Your task to perform on an android device: change notification settings in the gmail app Image 0: 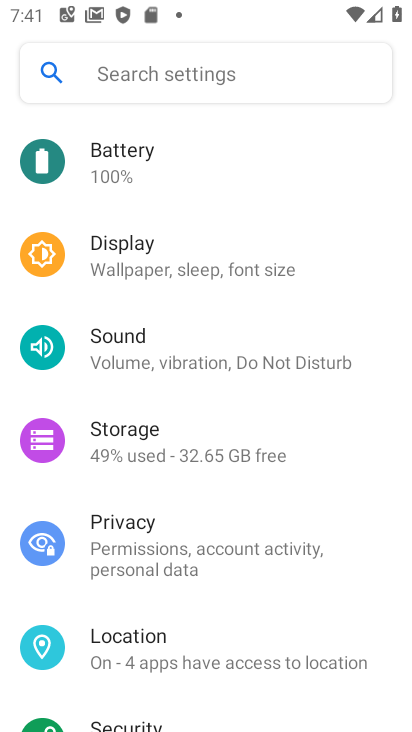
Step 0: press back button
Your task to perform on an android device: change notification settings in the gmail app Image 1: 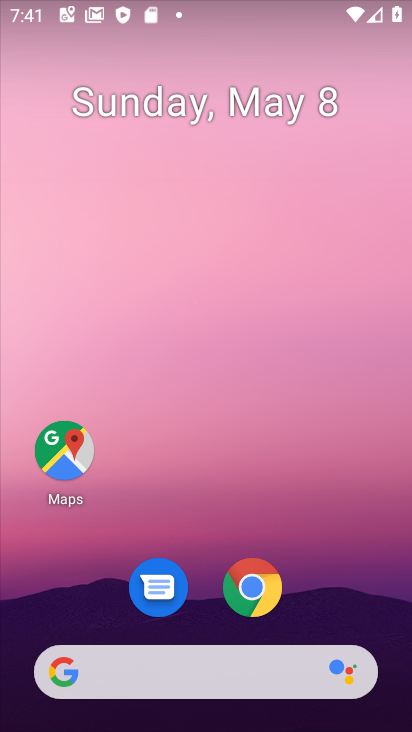
Step 1: drag from (336, 592) to (135, 5)
Your task to perform on an android device: change notification settings in the gmail app Image 2: 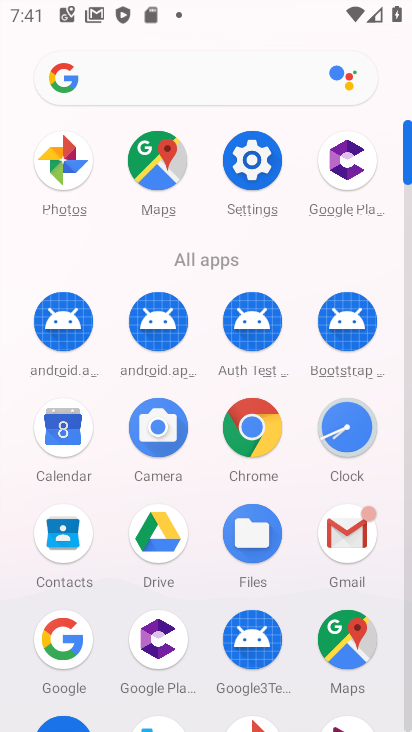
Step 2: click (344, 532)
Your task to perform on an android device: change notification settings in the gmail app Image 3: 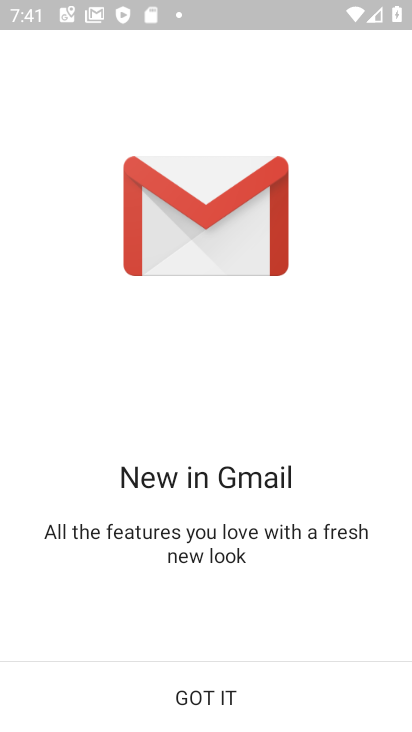
Step 3: click (194, 696)
Your task to perform on an android device: change notification settings in the gmail app Image 4: 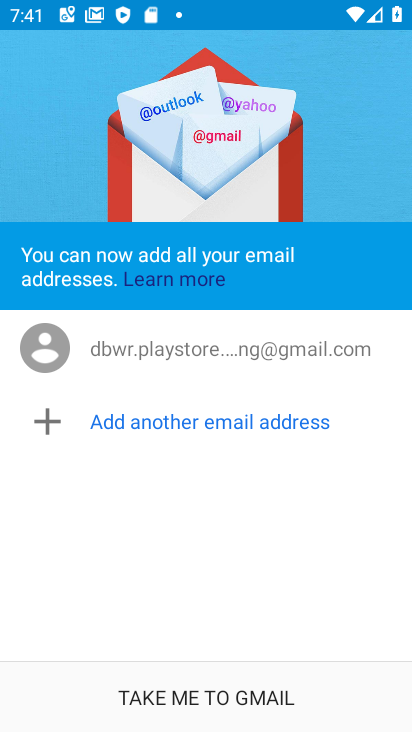
Step 4: click (195, 697)
Your task to perform on an android device: change notification settings in the gmail app Image 5: 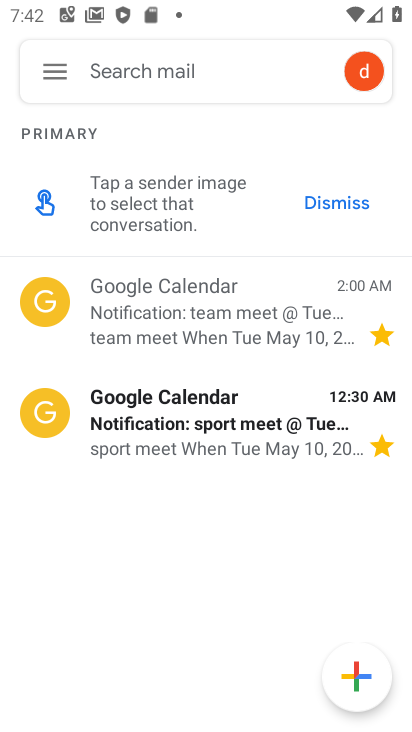
Step 5: click (48, 74)
Your task to perform on an android device: change notification settings in the gmail app Image 6: 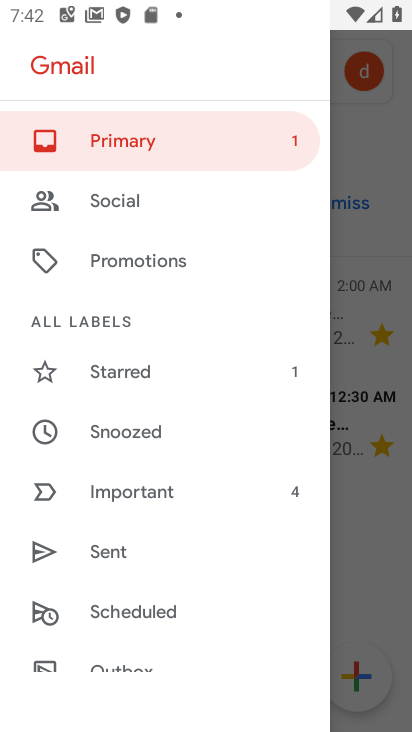
Step 6: drag from (151, 551) to (179, 443)
Your task to perform on an android device: change notification settings in the gmail app Image 7: 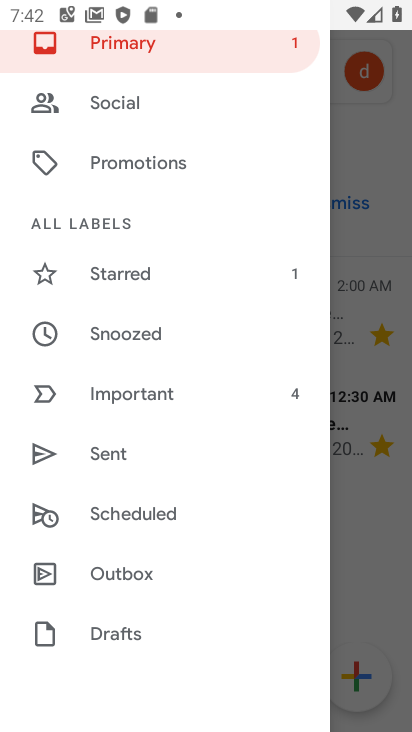
Step 7: drag from (140, 597) to (165, 474)
Your task to perform on an android device: change notification settings in the gmail app Image 8: 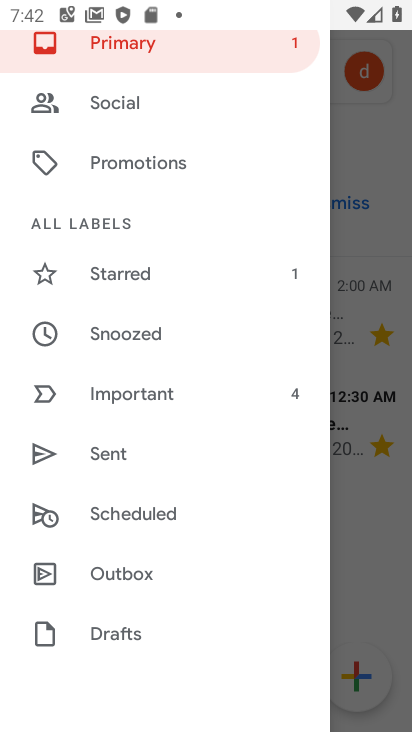
Step 8: drag from (113, 618) to (190, 484)
Your task to perform on an android device: change notification settings in the gmail app Image 9: 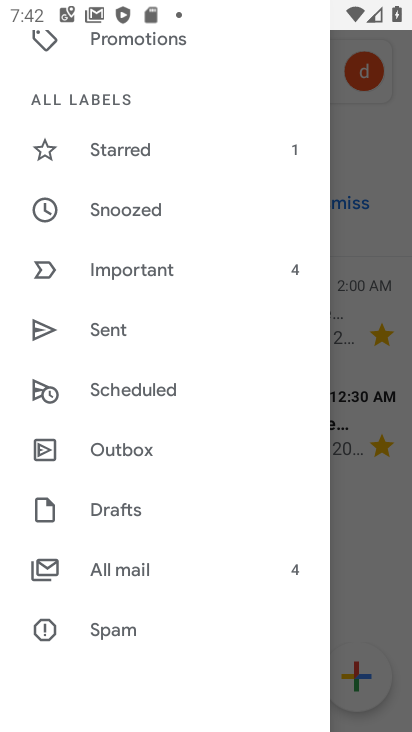
Step 9: drag from (117, 602) to (184, 498)
Your task to perform on an android device: change notification settings in the gmail app Image 10: 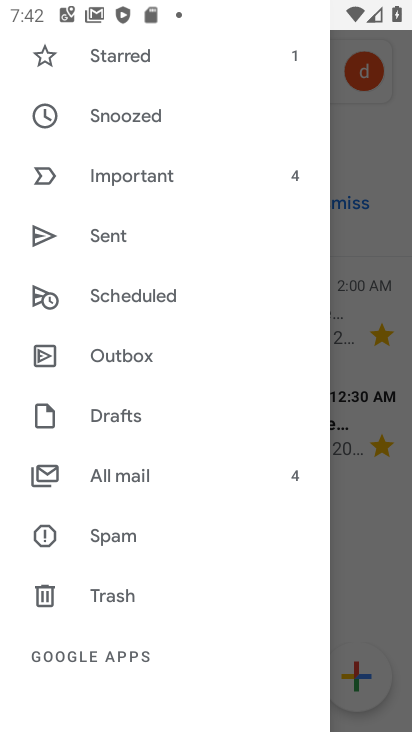
Step 10: drag from (123, 622) to (224, 500)
Your task to perform on an android device: change notification settings in the gmail app Image 11: 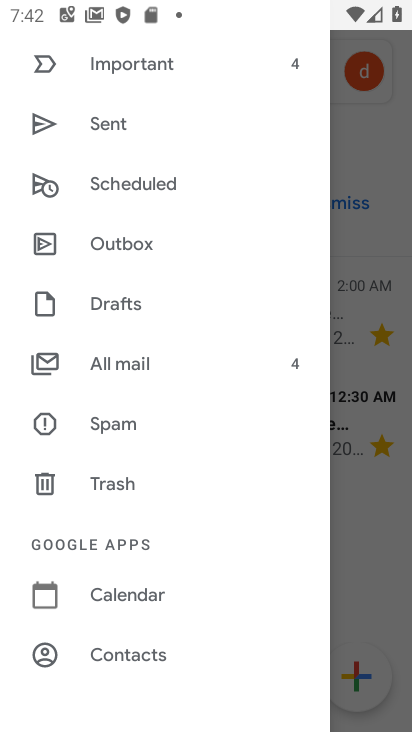
Step 11: drag from (121, 621) to (196, 498)
Your task to perform on an android device: change notification settings in the gmail app Image 12: 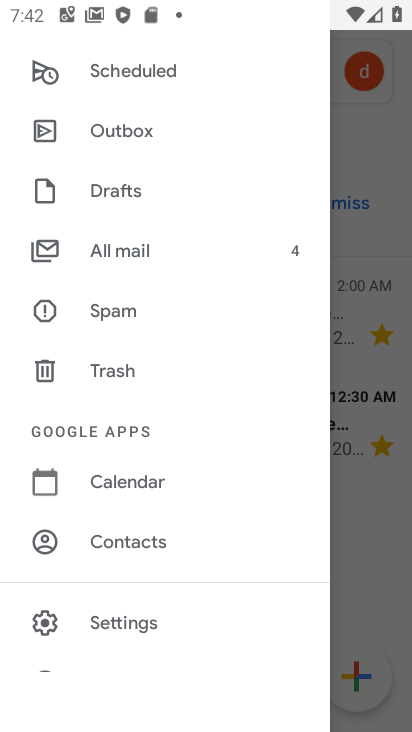
Step 12: click (122, 625)
Your task to perform on an android device: change notification settings in the gmail app Image 13: 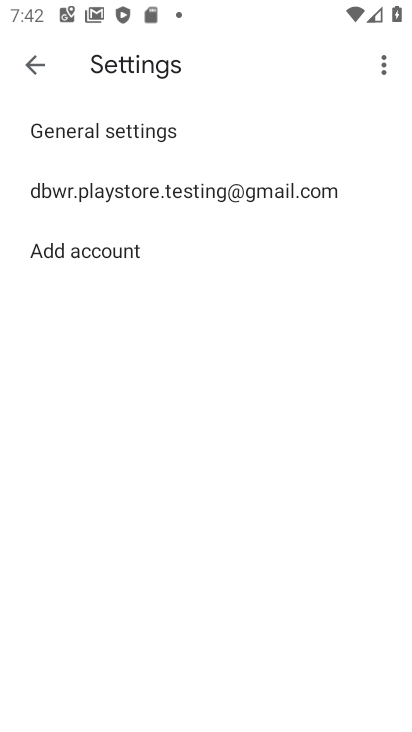
Step 13: click (166, 195)
Your task to perform on an android device: change notification settings in the gmail app Image 14: 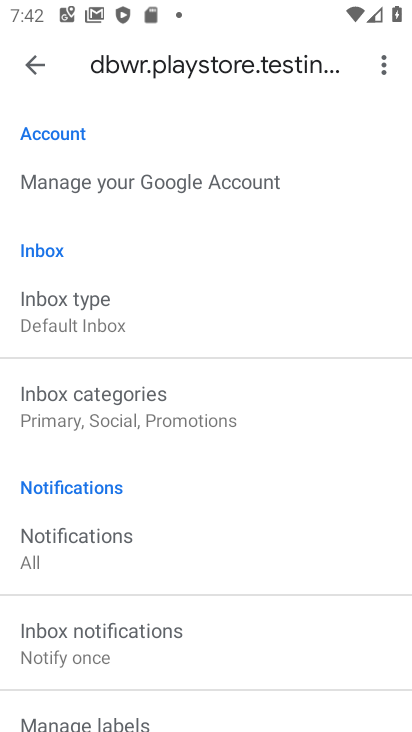
Step 14: drag from (124, 475) to (139, 396)
Your task to perform on an android device: change notification settings in the gmail app Image 15: 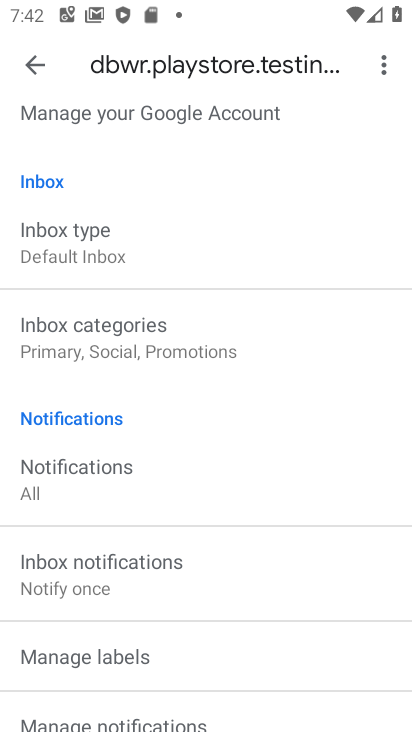
Step 15: drag from (122, 501) to (177, 397)
Your task to perform on an android device: change notification settings in the gmail app Image 16: 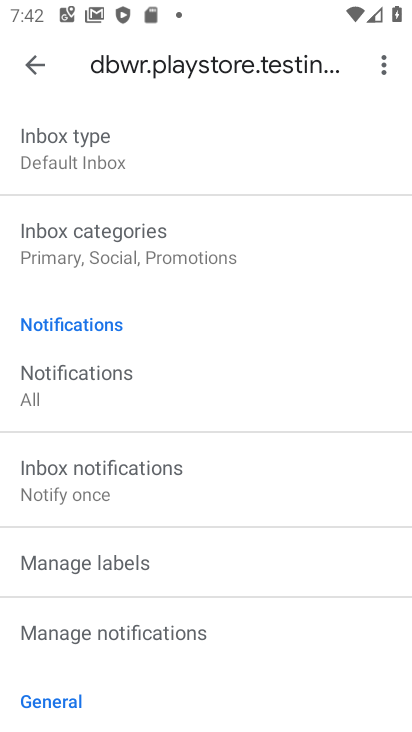
Step 16: click (117, 635)
Your task to perform on an android device: change notification settings in the gmail app Image 17: 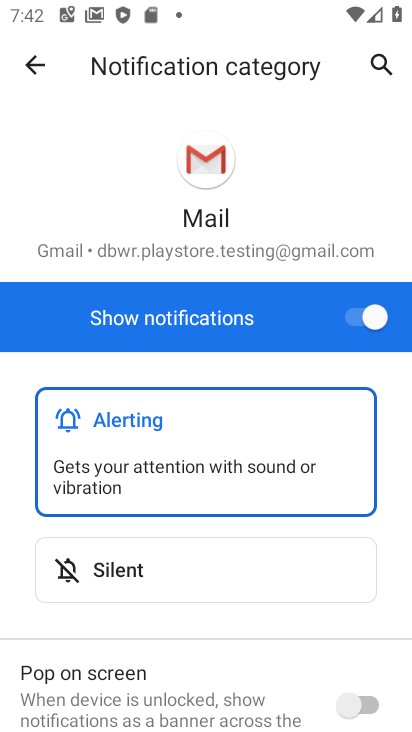
Step 17: click (373, 312)
Your task to perform on an android device: change notification settings in the gmail app Image 18: 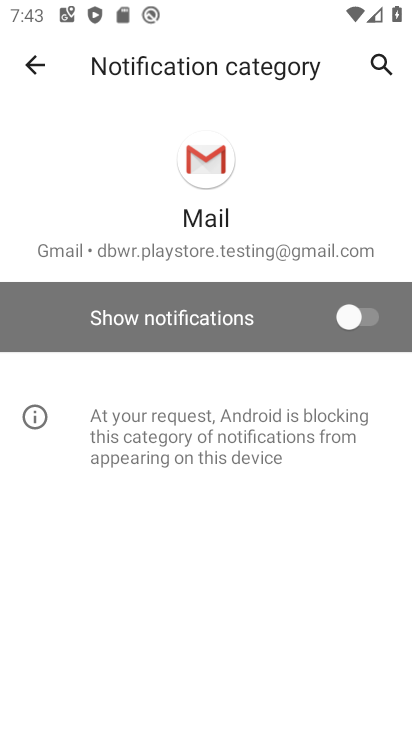
Step 18: task complete